Your task to perform on an android device: Clear all items from cart on costco.com. Search for "logitech g pro" on costco.com, select the first entry, add it to the cart, then select checkout. Image 0: 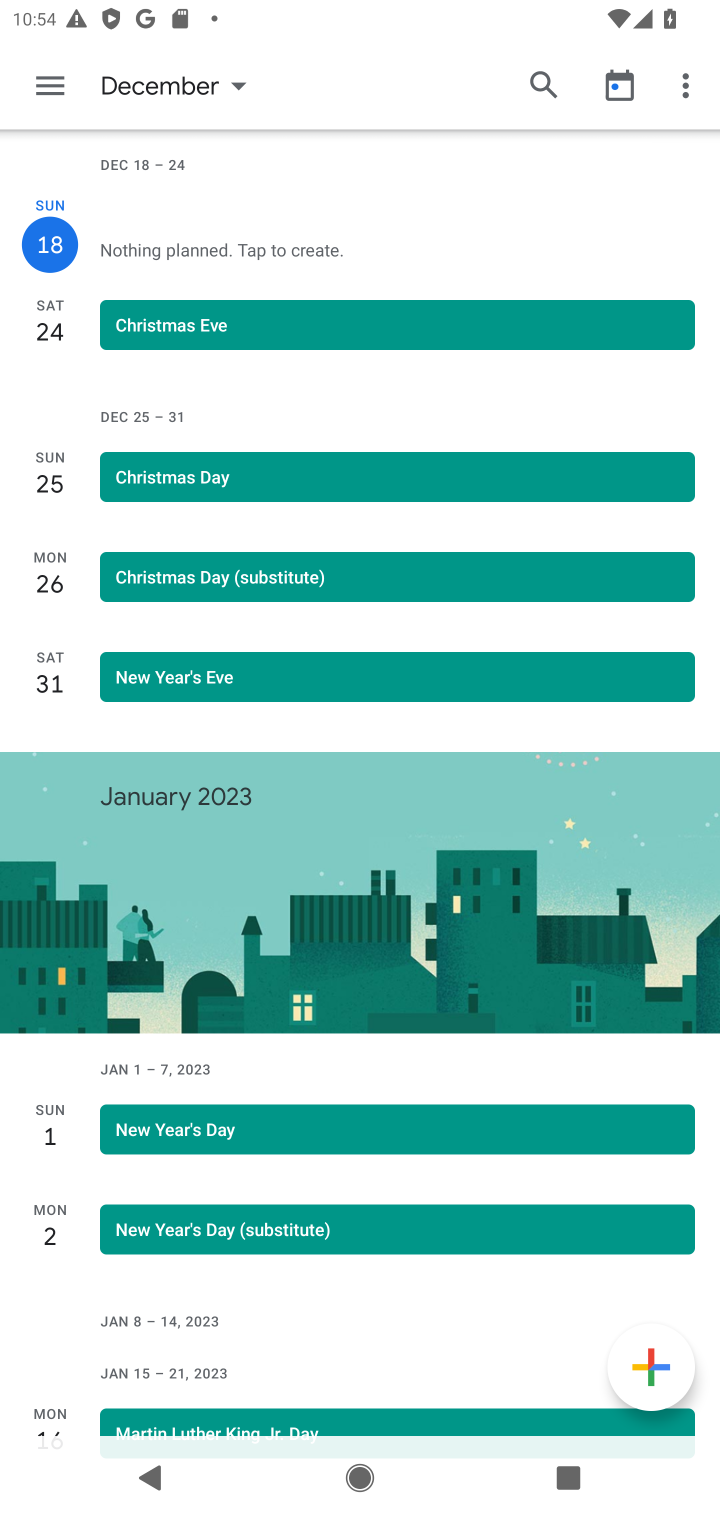
Step 0: press home button
Your task to perform on an android device: Clear all items from cart on costco.com. Search for "logitech g pro" on costco.com, select the first entry, add it to the cart, then select checkout. Image 1: 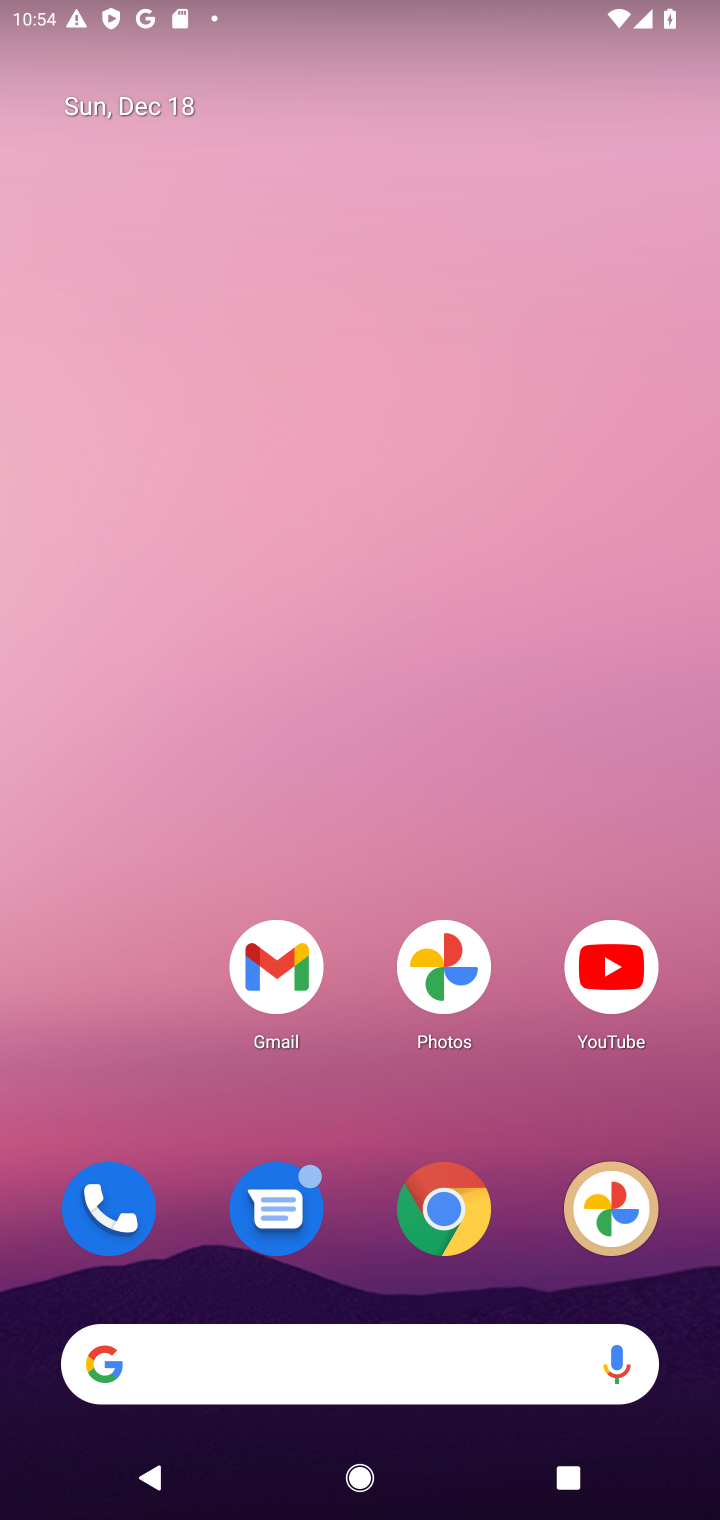
Step 1: click (435, 1214)
Your task to perform on an android device: Clear all items from cart on costco.com. Search for "logitech g pro" on costco.com, select the first entry, add it to the cart, then select checkout. Image 2: 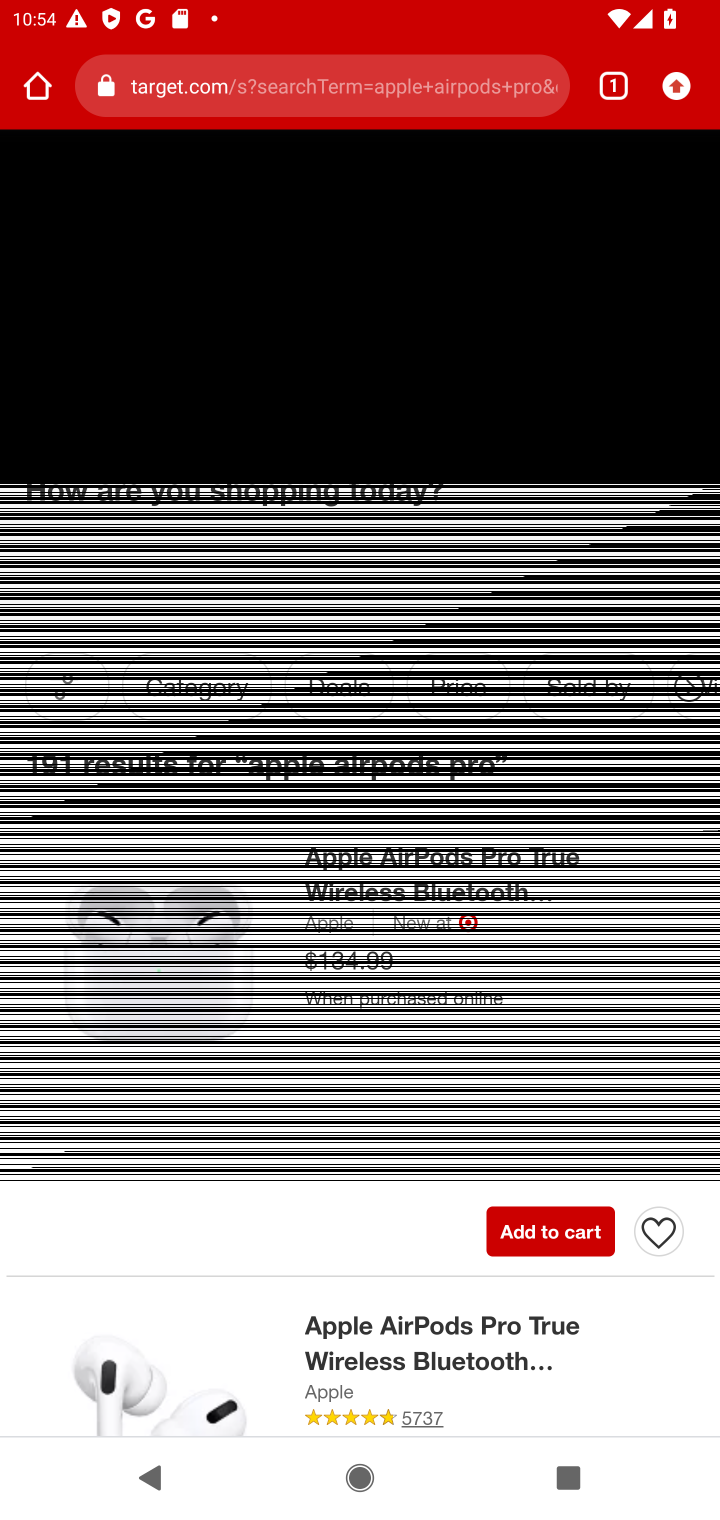
Step 2: click (350, 93)
Your task to perform on an android device: Clear all items from cart on costco.com. Search for "logitech g pro" on costco.com, select the first entry, add it to the cart, then select checkout. Image 3: 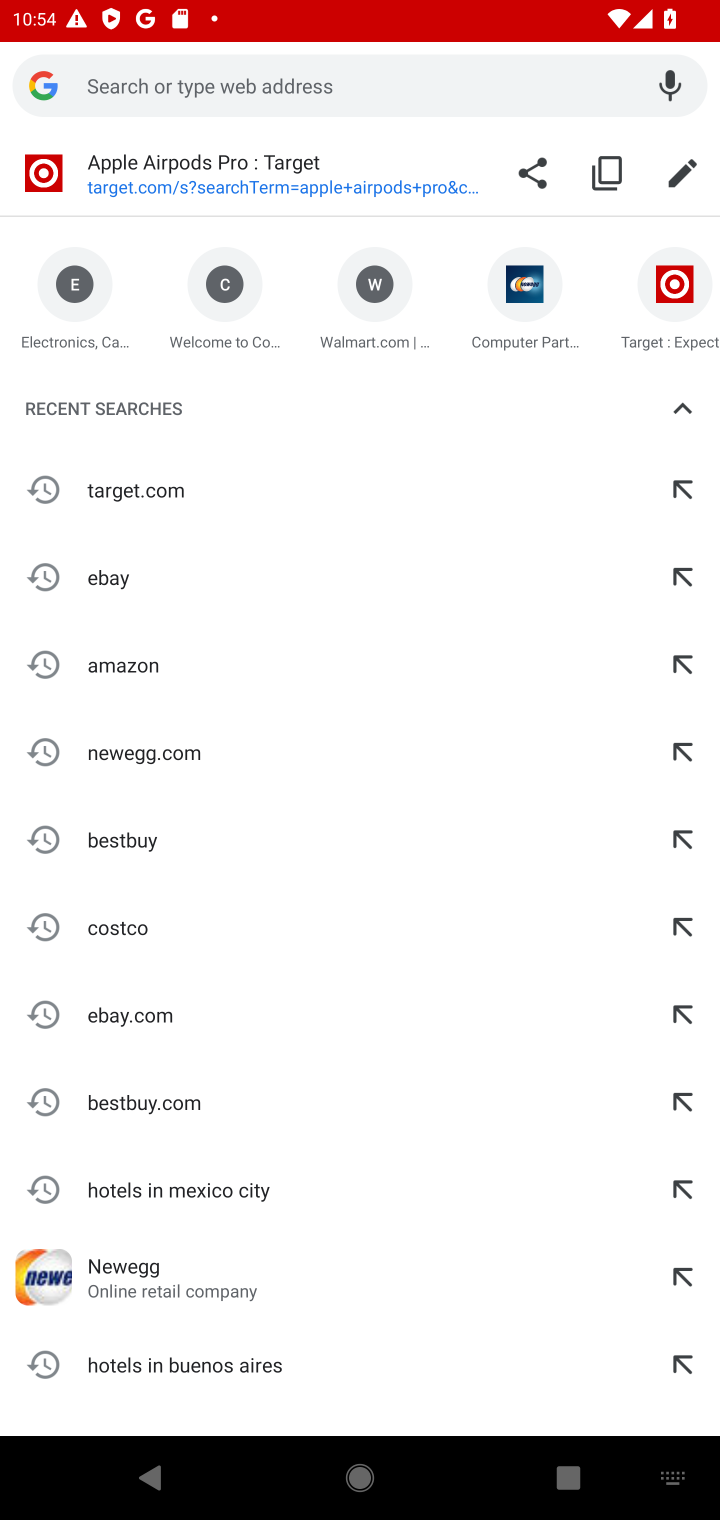
Step 3: click (154, 931)
Your task to perform on an android device: Clear all items from cart on costco.com. Search for "logitech g pro" on costco.com, select the first entry, add it to the cart, then select checkout. Image 4: 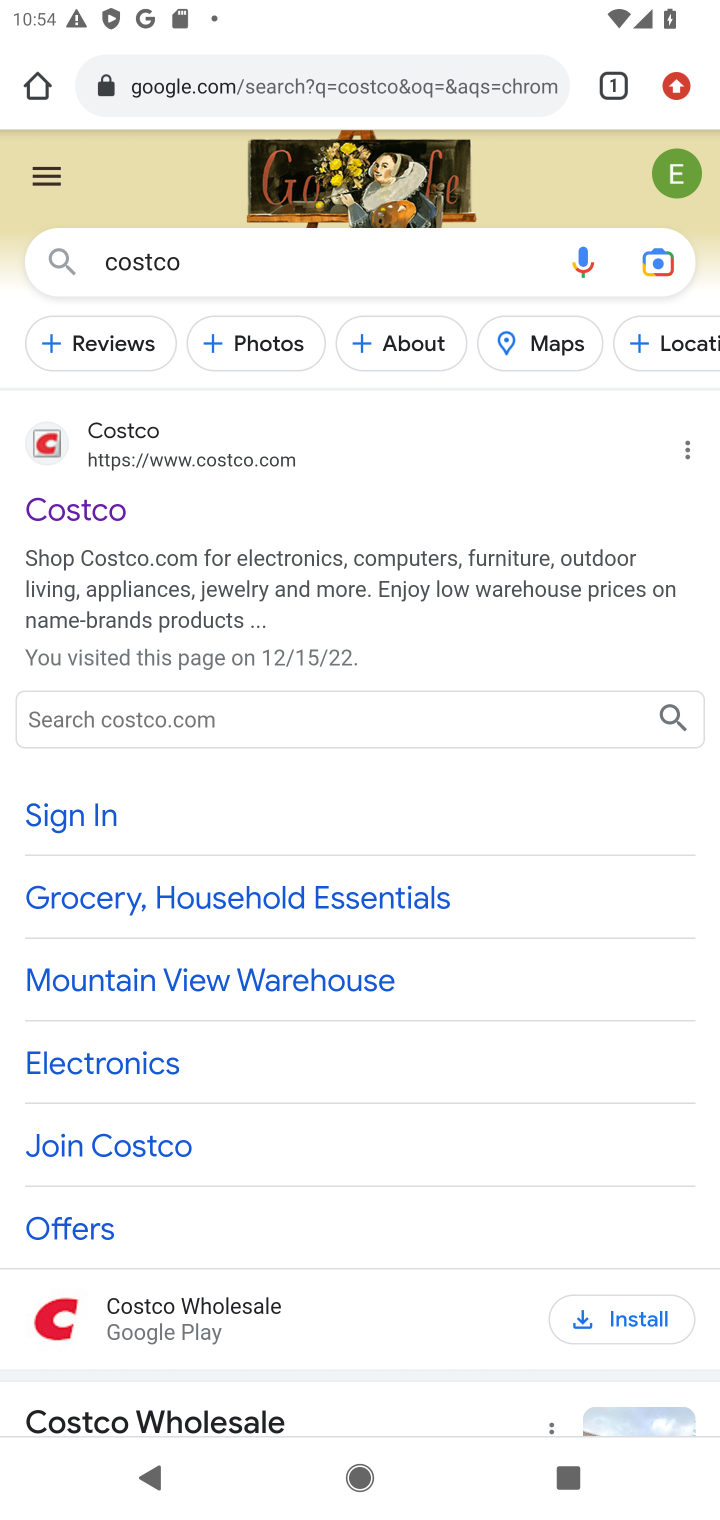
Step 4: click (86, 510)
Your task to perform on an android device: Clear all items from cart on costco.com. Search for "logitech g pro" on costco.com, select the first entry, add it to the cart, then select checkout. Image 5: 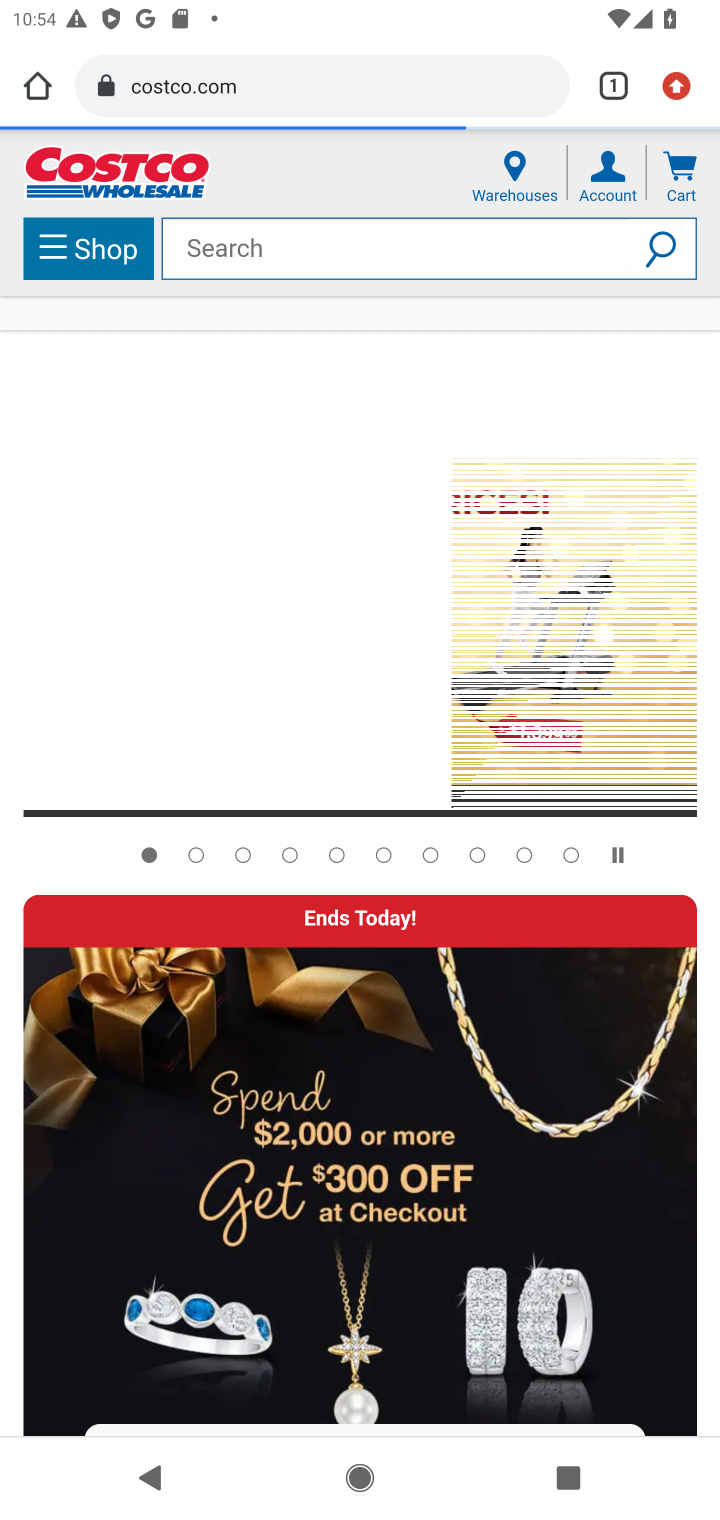
Step 5: click (388, 240)
Your task to perform on an android device: Clear all items from cart on costco.com. Search for "logitech g pro" on costco.com, select the first entry, add it to the cart, then select checkout. Image 6: 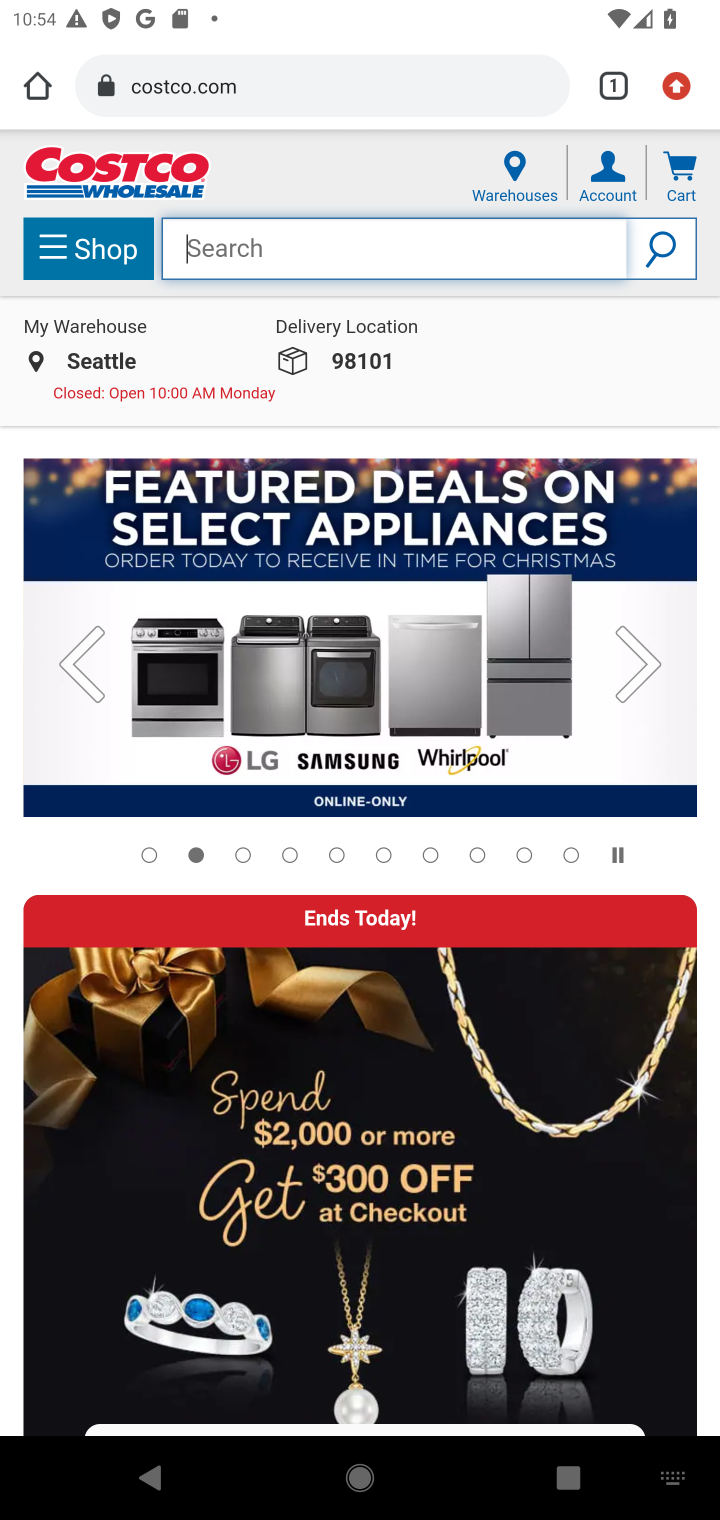
Step 6: type "LOGITECH G PRO"
Your task to perform on an android device: Clear all items from cart on costco.com. Search for "logitech g pro" on costco.com, select the first entry, add it to the cart, then select checkout. Image 7: 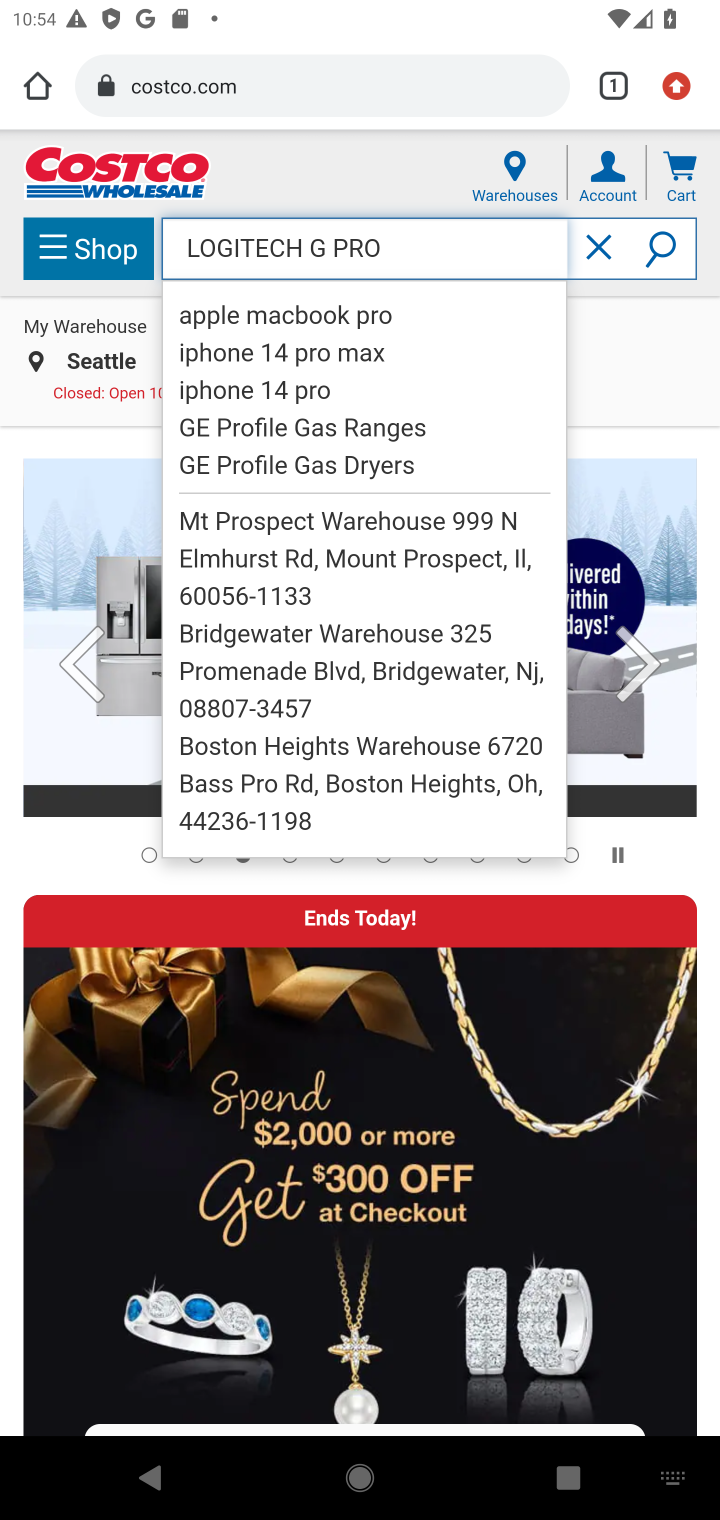
Step 7: click (305, 321)
Your task to perform on an android device: Clear all items from cart on costco.com. Search for "logitech g pro" on costco.com, select the first entry, add it to the cart, then select checkout. Image 8: 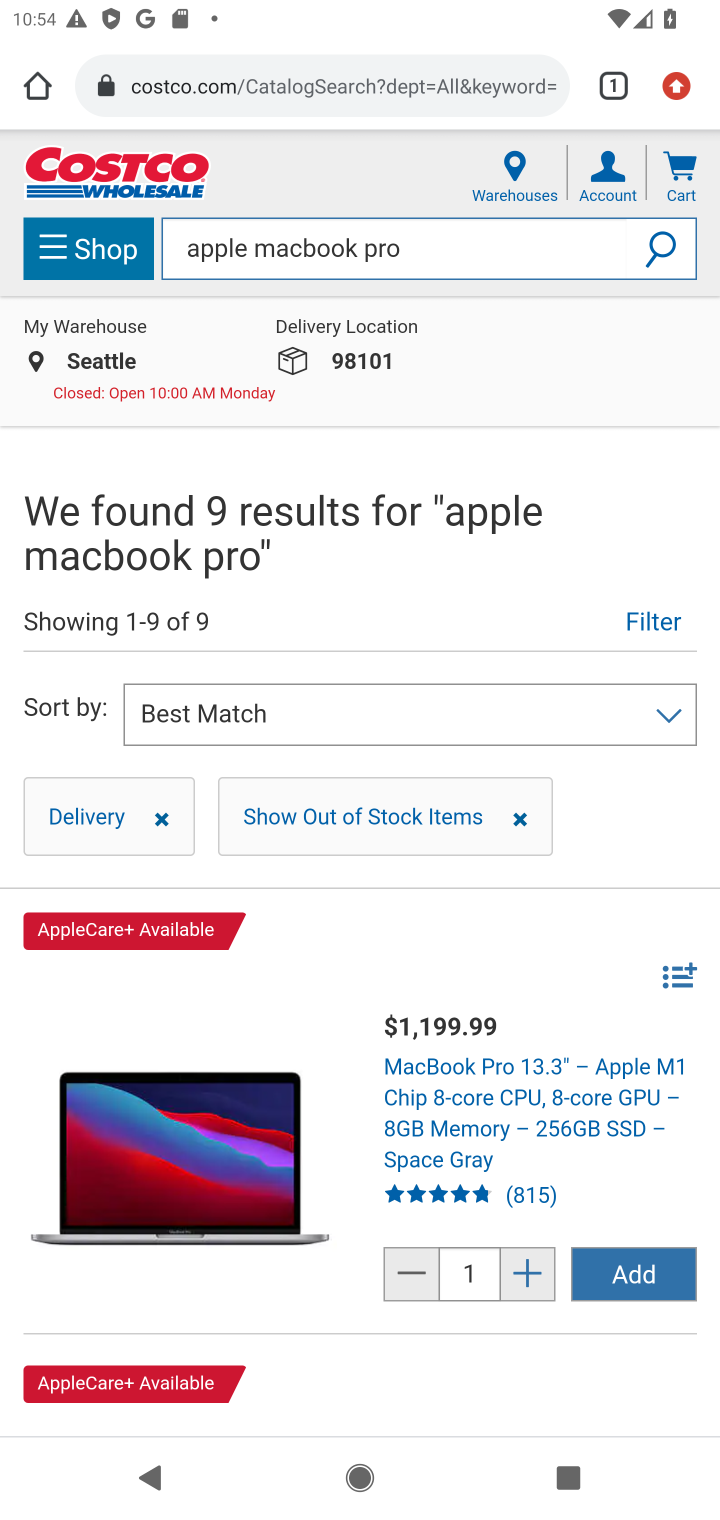
Step 8: click (582, 1103)
Your task to perform on an android device: Clear all items from cart on costco.com. Search for "logitech g pro" on costco.com, select the first entry, add it to the cart, then select checkout. Image 9: 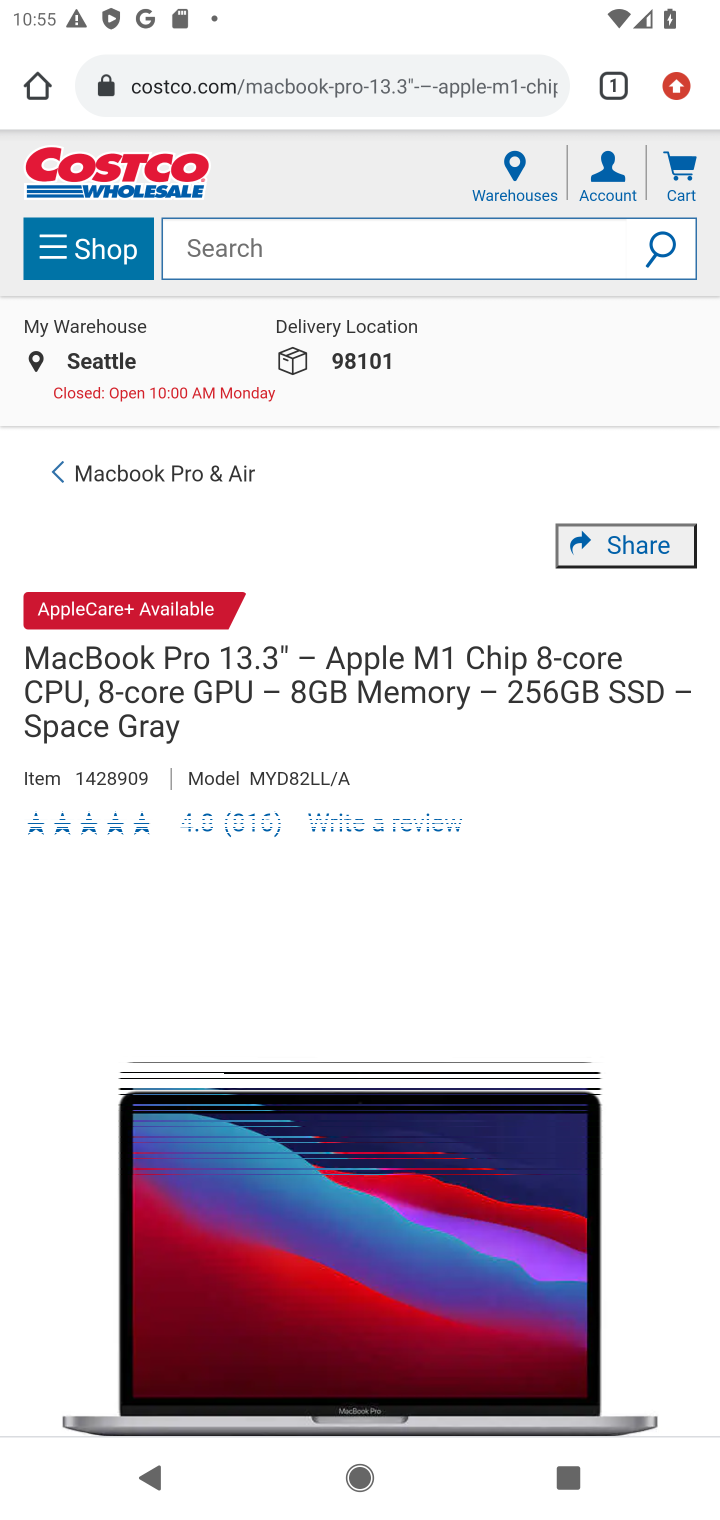
Step 9: drag from (481, 925) to (419, 363)
Your task to perform on an android device: Clear all items from cart on costco.com. Search for "logitech g pro" on costco.com, select the first entry, add it to the cart, then select checkout. Image 10: 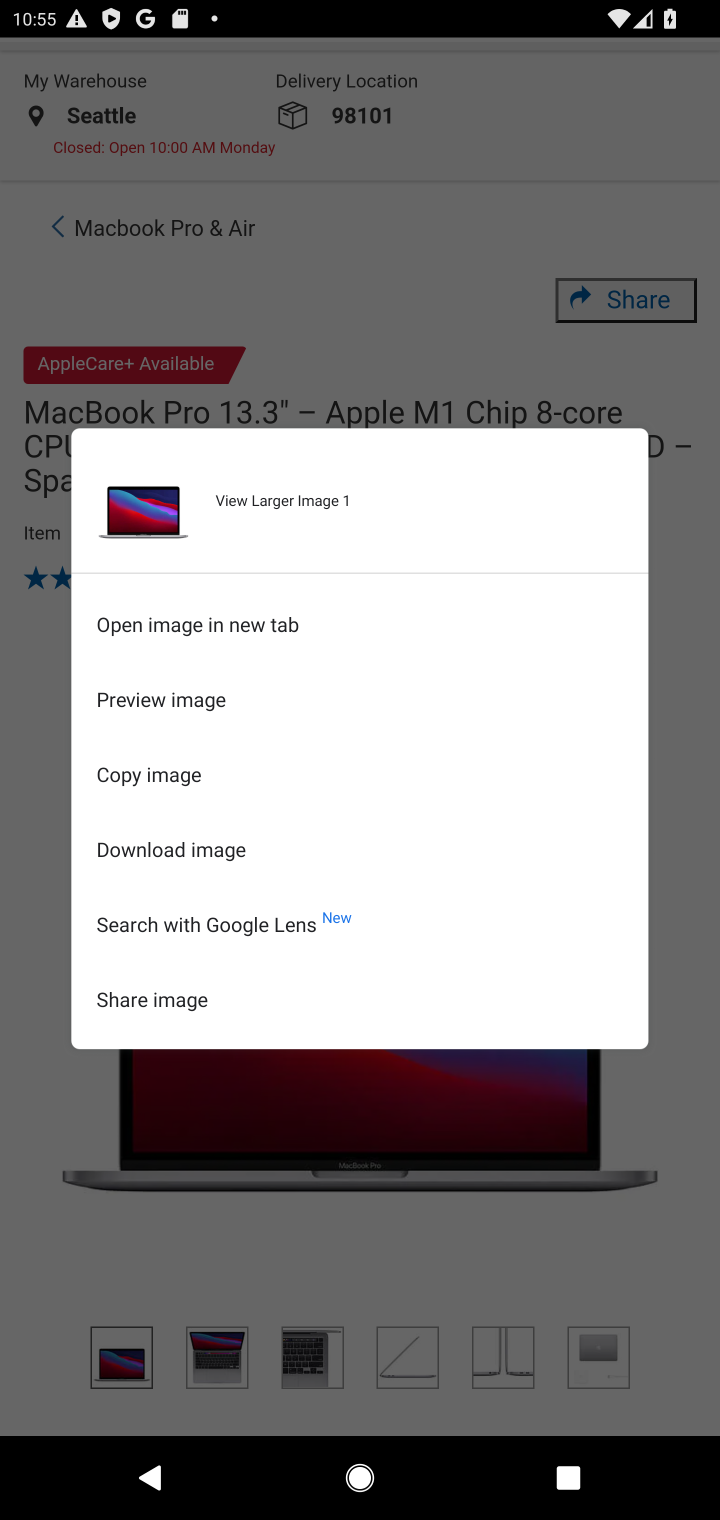
Step 10: click (419, 363)
Your task to perform on an android device: Clear all items from cart on costco.com. Search for "logitech g pro" on costco.com, select the first entry, add it to the cart, then select checkout. Image 11: 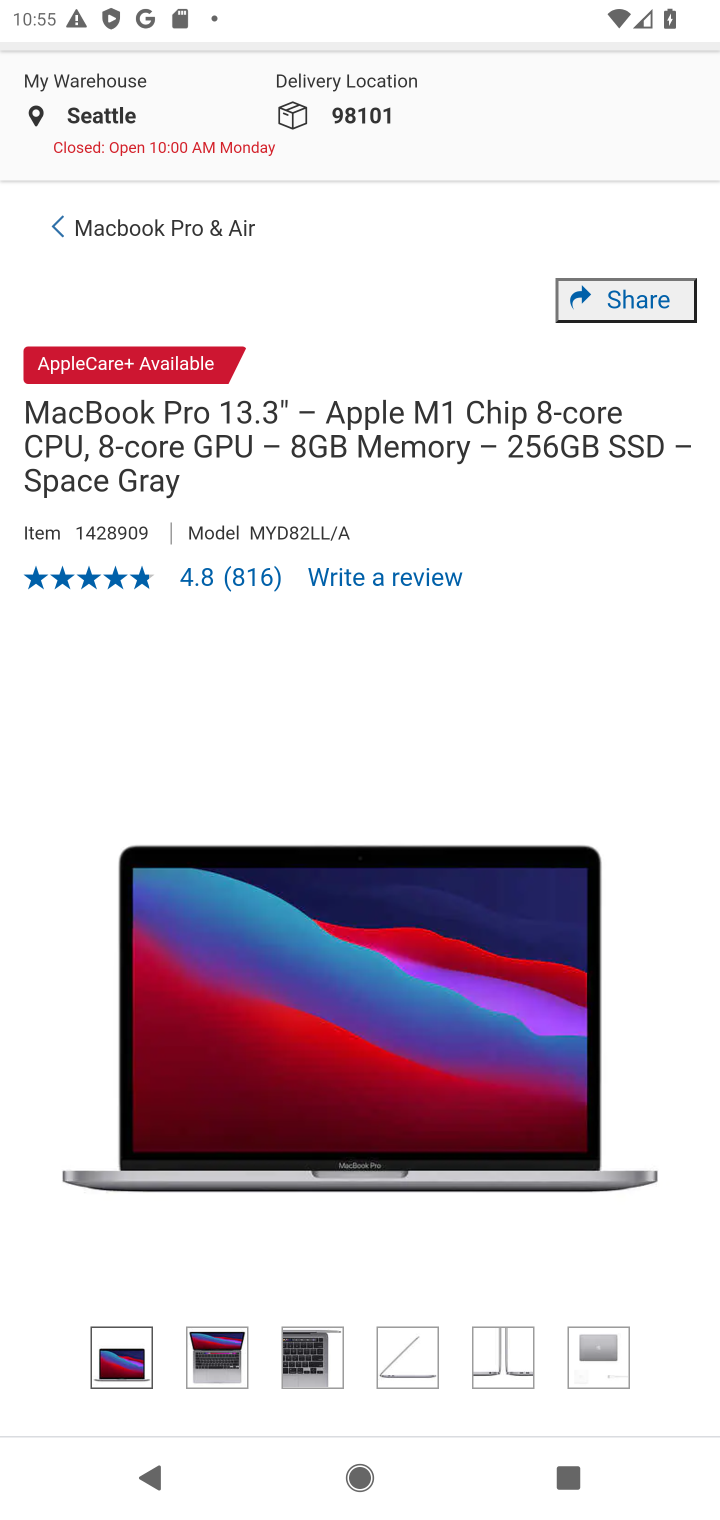
Step 11: drag from (492, 1068) to (417, 241)
Your task to perform on an android device: Clear all items from cart on costco.com. Search for "logitech g pro" on costco.com, select the first entry, add it to the cart, then select checkout. Image 12: 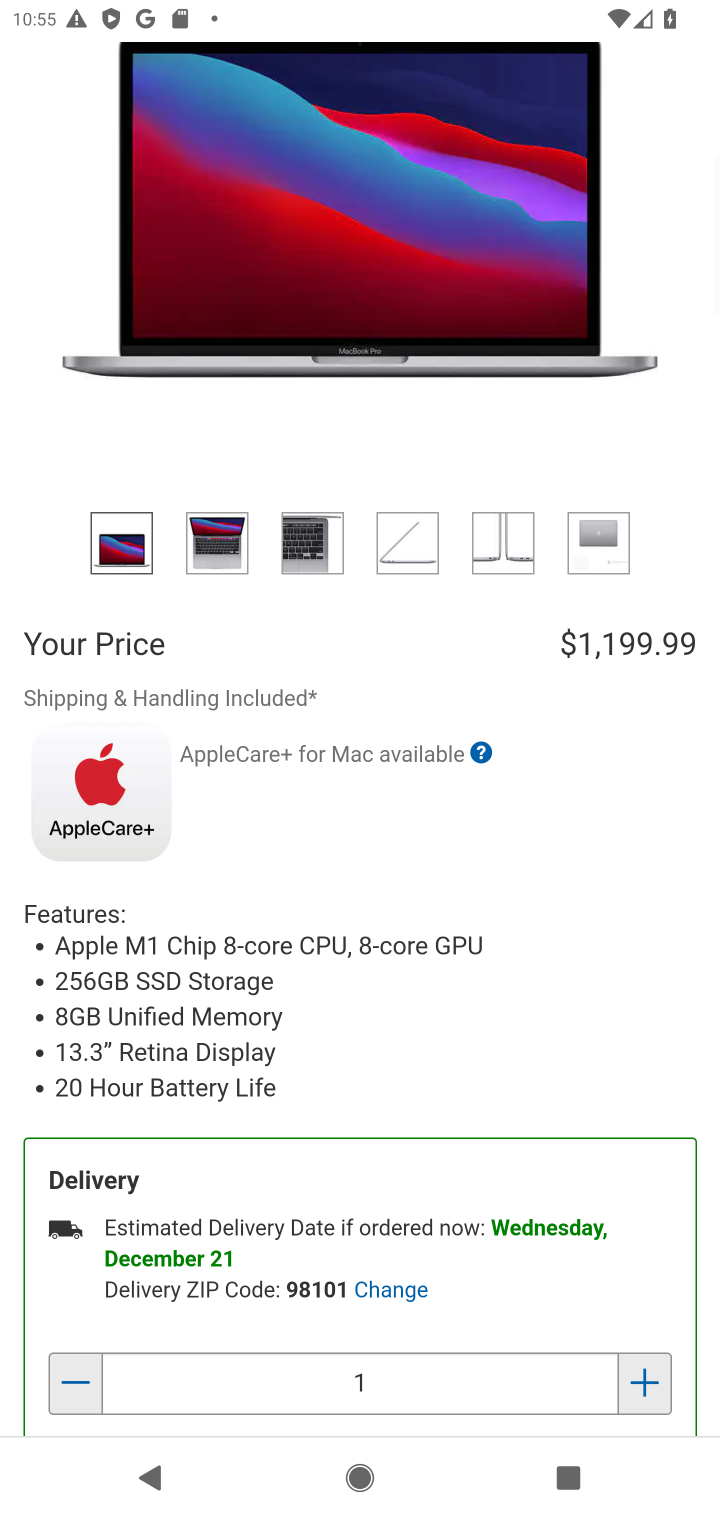
Step 12: drag from (439, 1170) to (428, 586)
Your task to perform on an android device: Clear all items from cart on costco.com. Search for "logitech g pro" on costco.com, select the first entry, add it to the cart, then select checkout. Image 13: 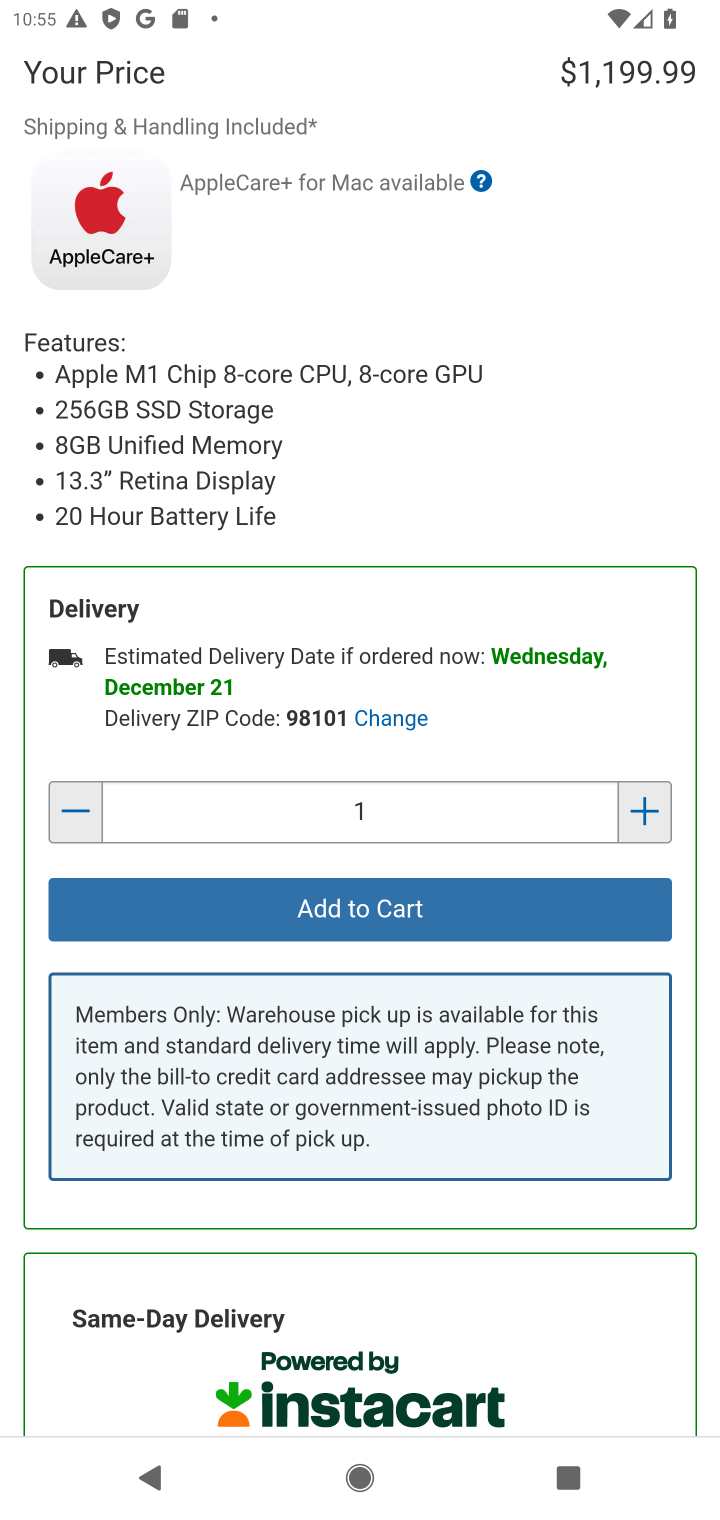
Step 13: click (372, 910)
Your task to perform on an android device: Clear all items from cart on costco.com. Search for "logitech g pro" on costco.com, select the first entry, add it to the cart, then select checkout. Image 14: 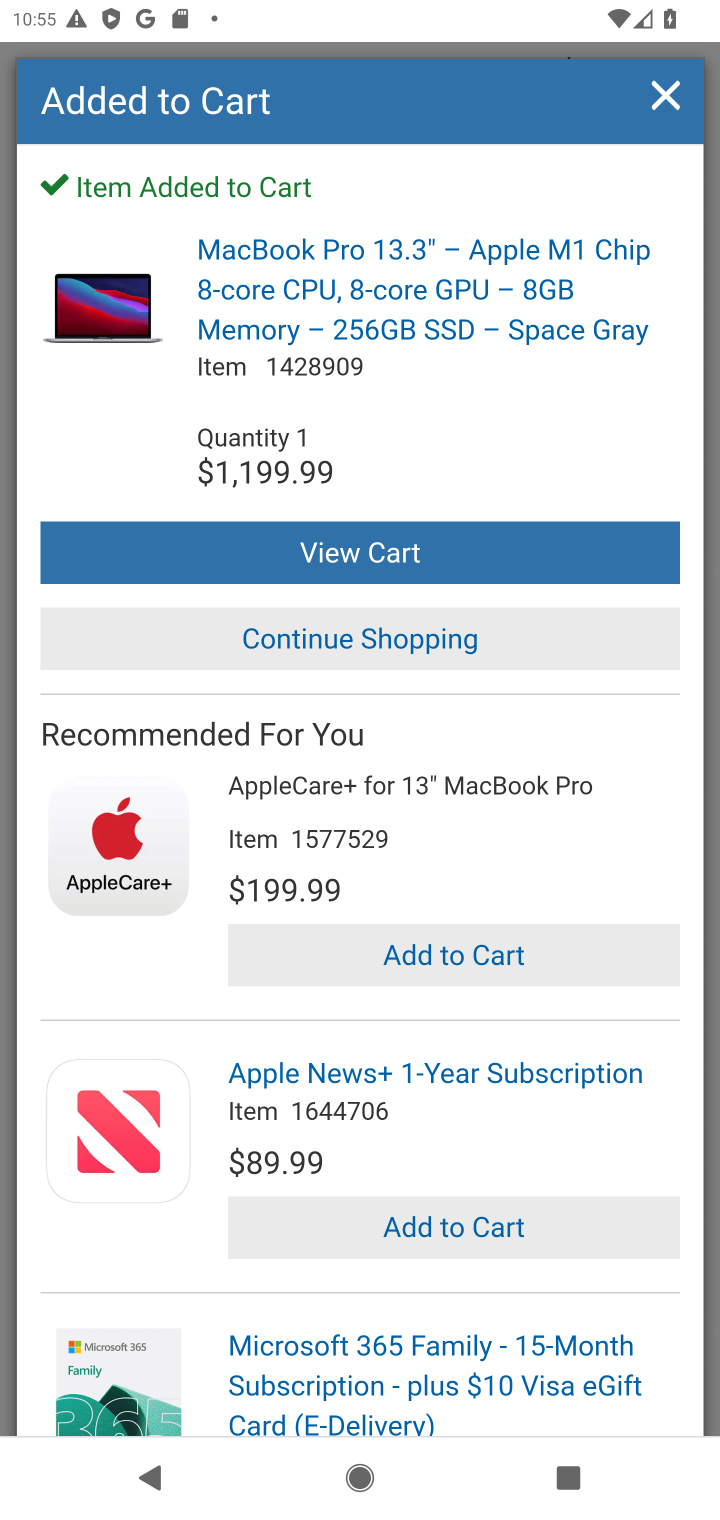
Step 14: click (397, 559)
Your task to perform on an android device: Clear all items from cart on costco.com. Search for "logitech g pro" on costco.com, select the first entry, add it to the cart, then select checkout. Image 15: 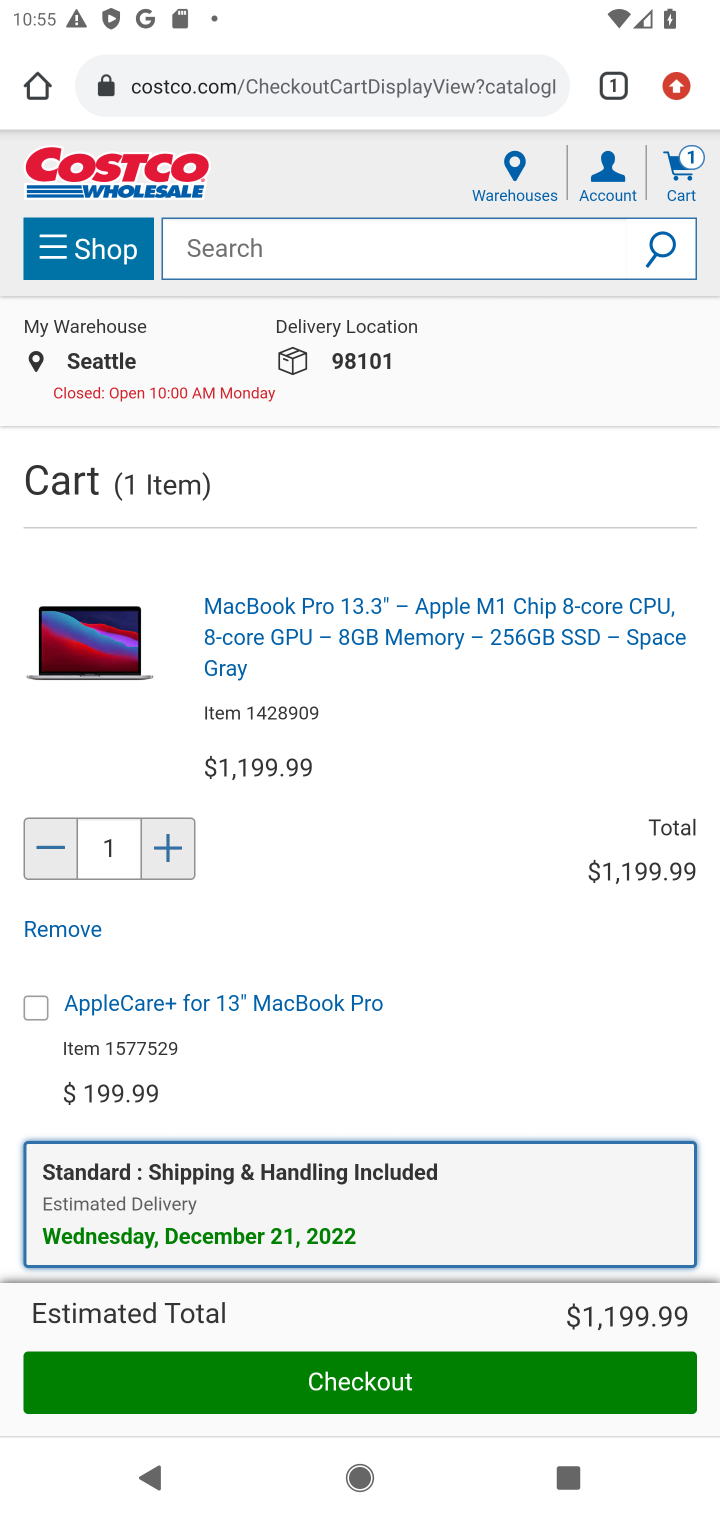
Step 15: click (372, 1386)
Your task to perform on an android device: Clear all items from cart on costco.com. Search for "logitech g pro" on costco.com, select the first entry, add it to the cart, then select checkout. Image 16: 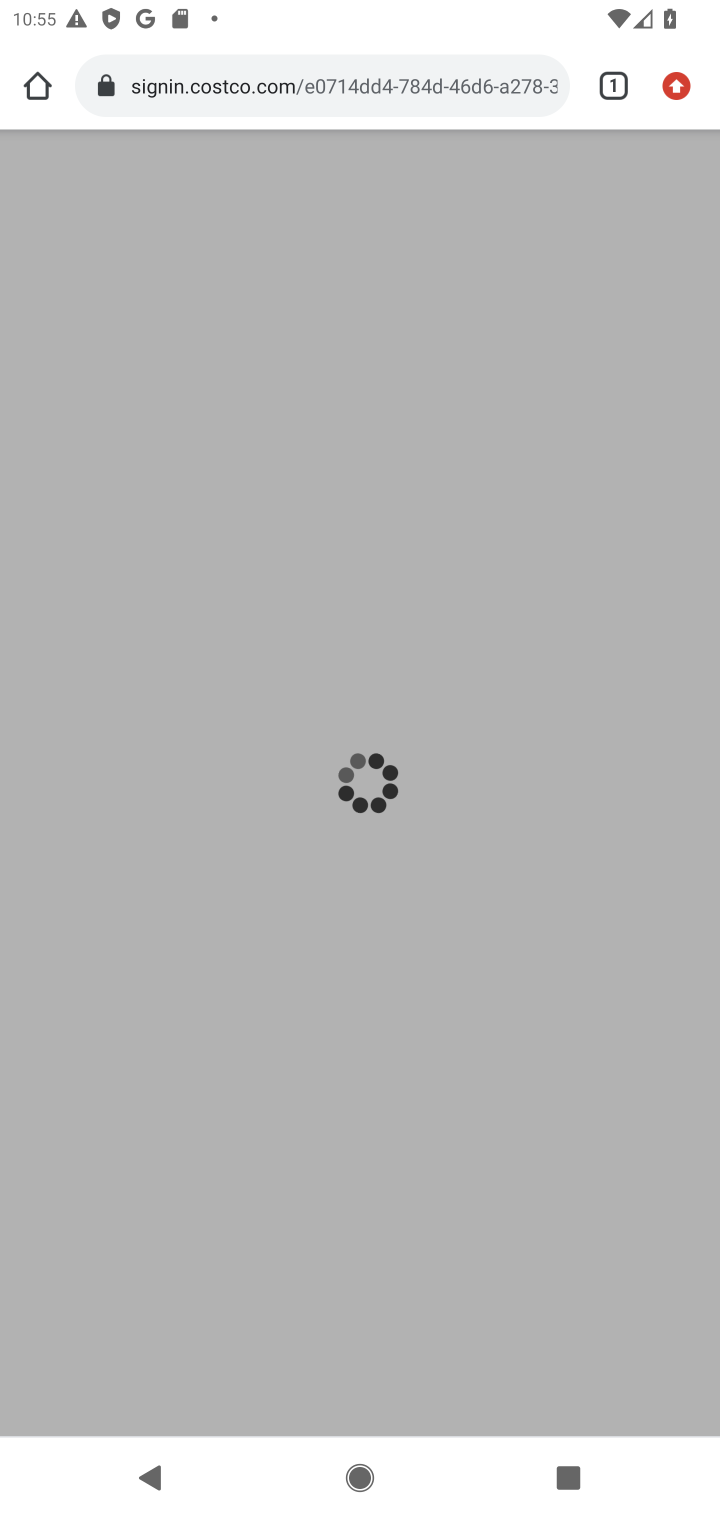
Step 16: task complete